Your task to perform on an android device: change notification settings in the gmail app Image 0: 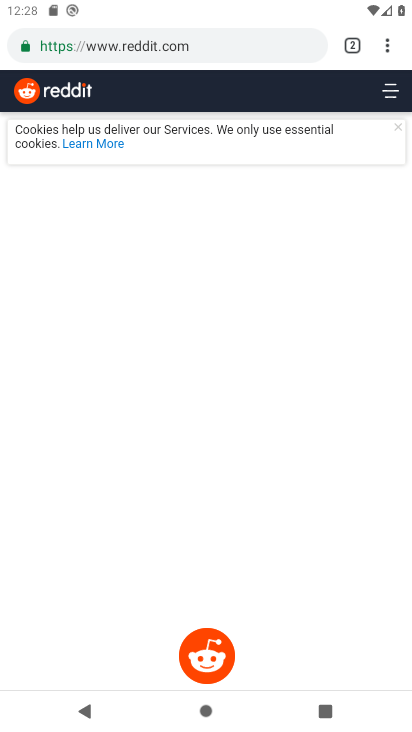
Step 0: press home button
Your task to perform on an android device: change notification settings in the gmail app Image 1: 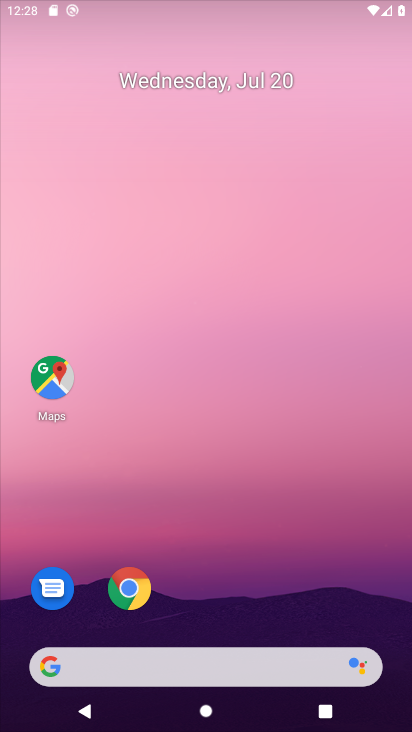
Step 1: drag from (231, 648) to (244, 299)
Your task to perform on an android device: change notification settings in the gmail app Image 2: 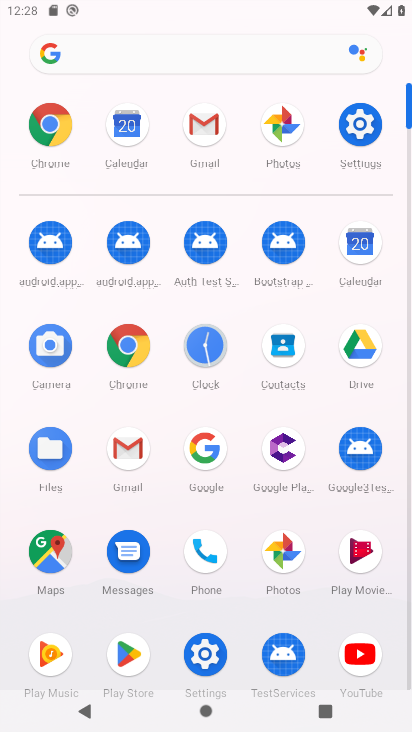
Step 2: click (211, 128)
Your task to perform on an android device: change notification settings in the gmail app Image 3: 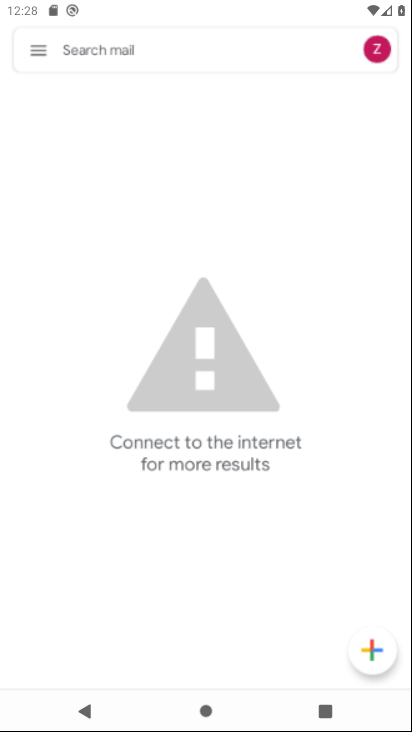
Step 3: click (34, 47)
Your task to perform on an android device: change notification settings in the gmail app Image 4: 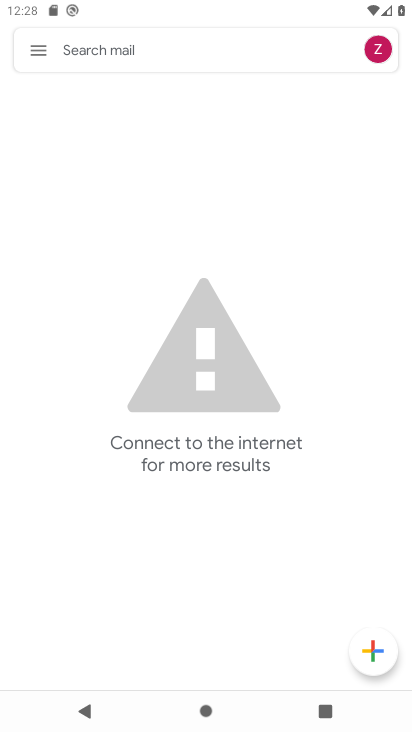
Step 4: click (42, 49)
Your task to perform on an android device: change notification settings in the gmail app Image 5: 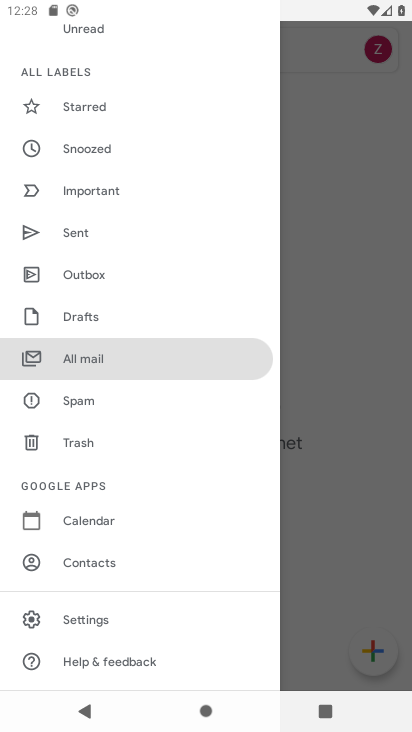
Step 5: click (92, 607)
Your task to perform on an android device: change notification settings in the gmail app Image 6: 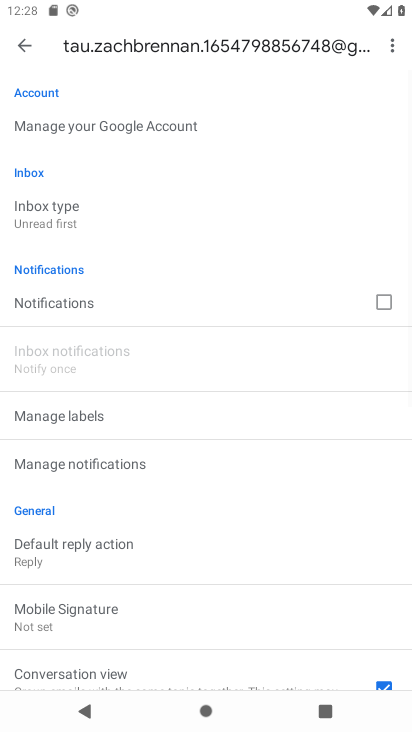
Step 6: click (85, 286)
Your task to perform on an android device: change notification settings in the gmail app Image 7: 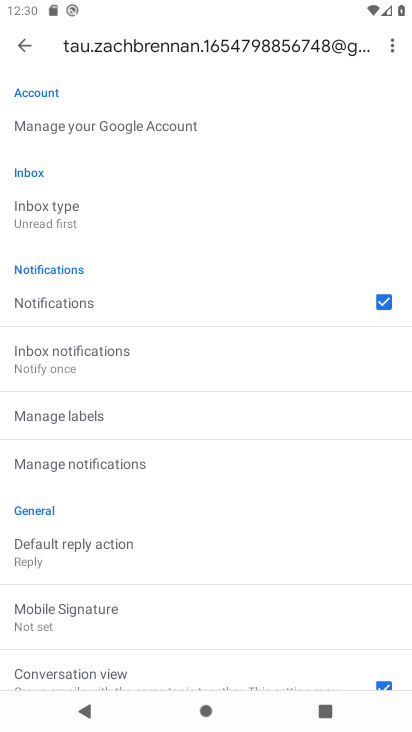
Step 7: task complete